Your task to perform on an android device: Is it going to rain tomorrow? Image 0: 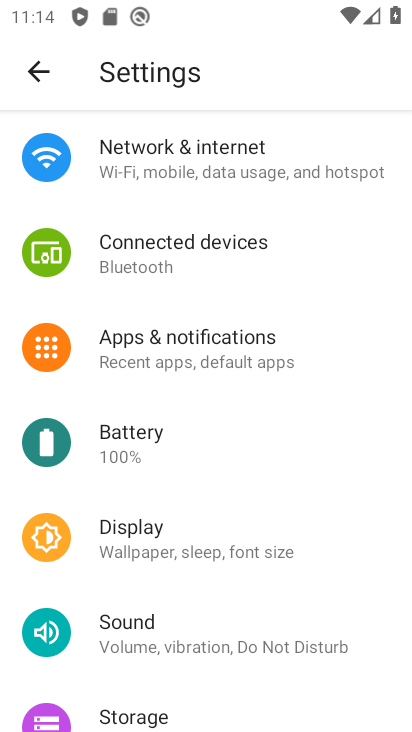
Step 0: press home button
Your task to perform on an android device: Is it going to rain tomorrow? Image 1: 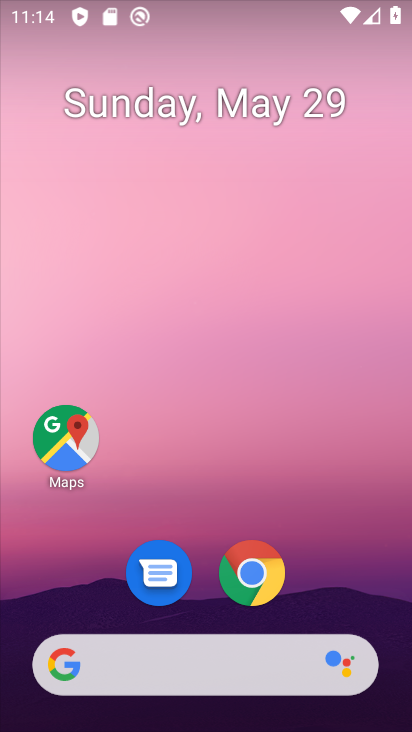
Step 1: click (177, 678)
Your task to perform on an android device: Is it going to rain tomorrow? Image 2: 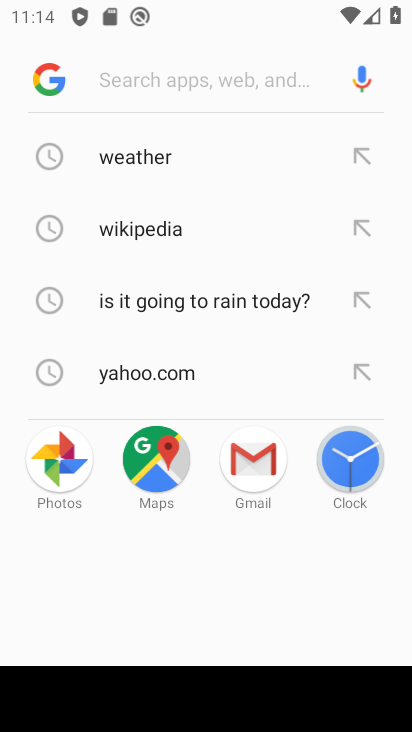
Step 2: type "Is it going to rain tomorrow"
Your task to perform on an android device: Is it going to rain tomorrow? Image 3: 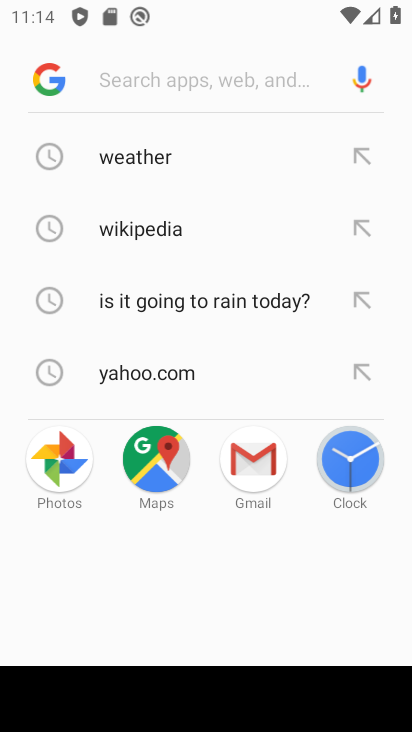
Step 3: click (184, 76)
Your task to perform on an android device: Is it going to rain tomorrow? Image 4: 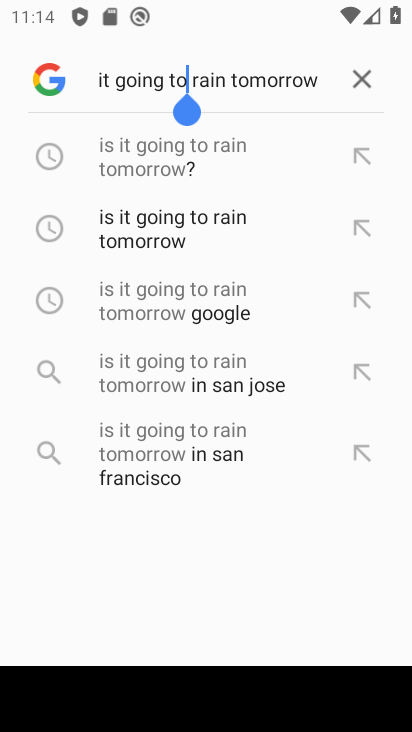
Step 4: click (167, 168)
Your task to perform on an android device: Is it going to rain tomorrow? Image 5: 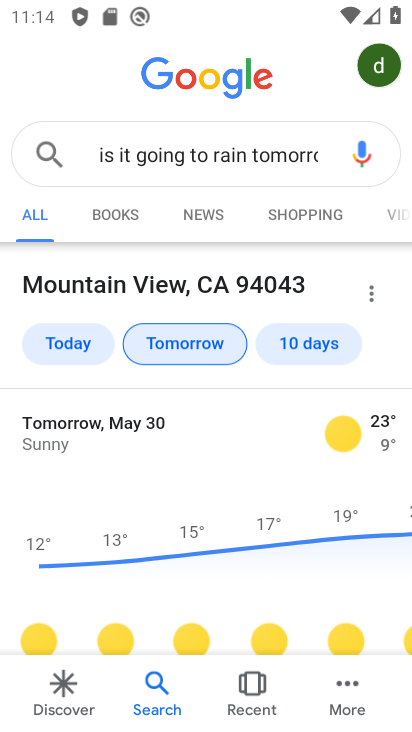
Step 5: task complete